Your task to perform on an android device: Open accessibility settings Image 0: 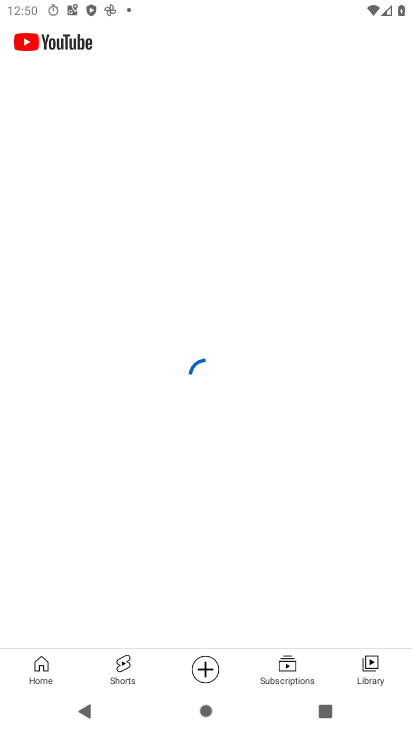
Step 0: click (218, 588)
Your task to perform on an android device: Open accessibility settings Image 1: 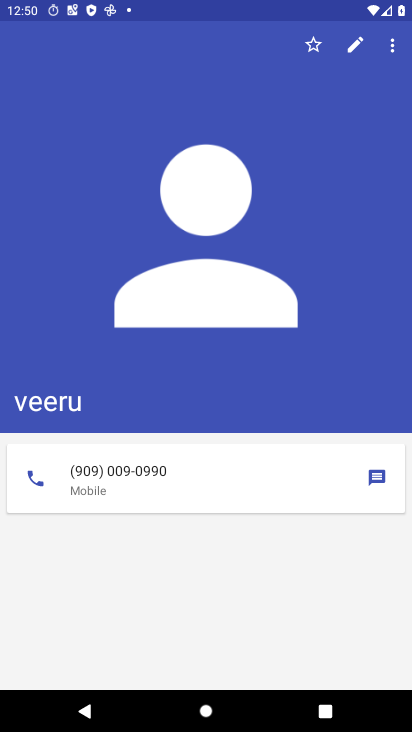
Step 1: press home button
Your task to perform on an android device: Open accessibility settings Image 2: 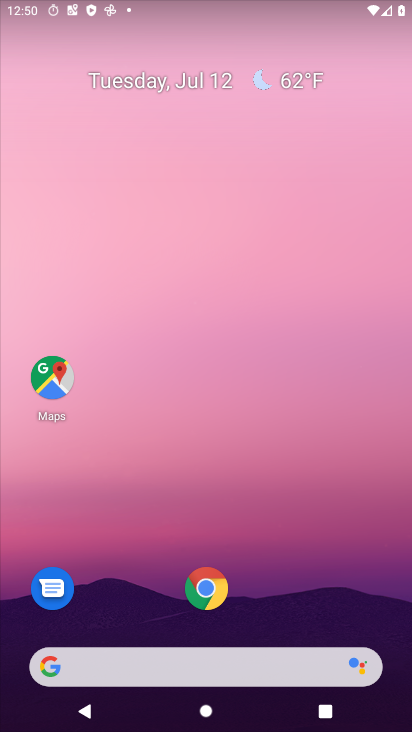
Step 2: drag from (202, 382) to (265, 161)
Your task to perform on an android device: Open accessibility settings Image 3: 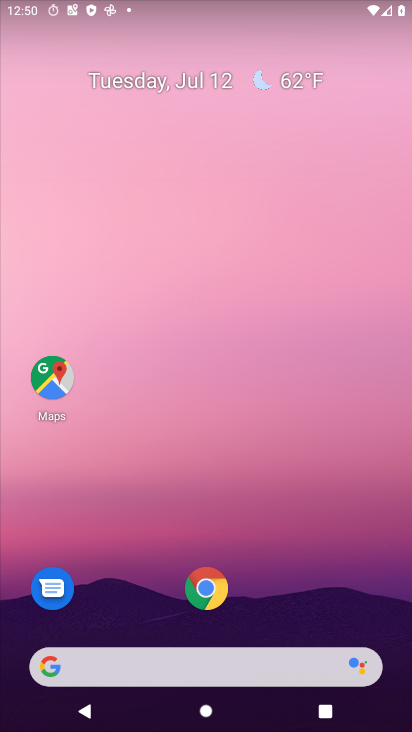
Step 3: drag from (217, 445) to (217, 253)
Your task to perform on an android device: Open accessibility settings Image 4: 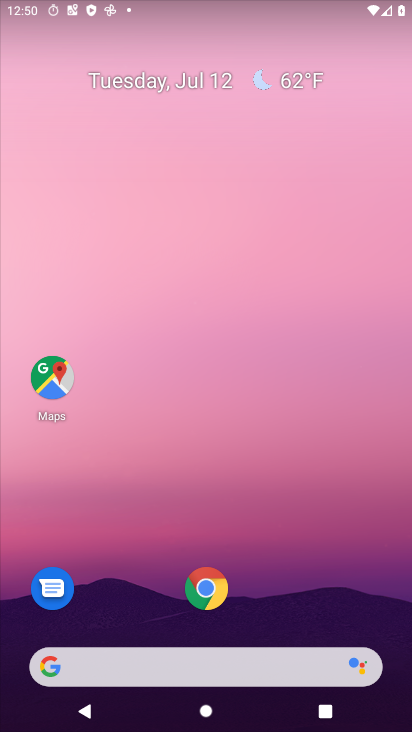
Step 4: click (205, 584)
Your task to perform on an android device: Open accessibility settings Image 5: 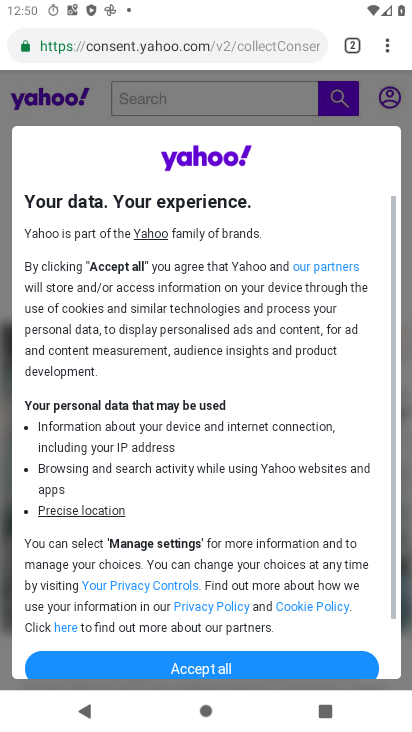
Step 5: click (387, 50)
Your task to perform on an android device: Open accessibility settings Image 6: 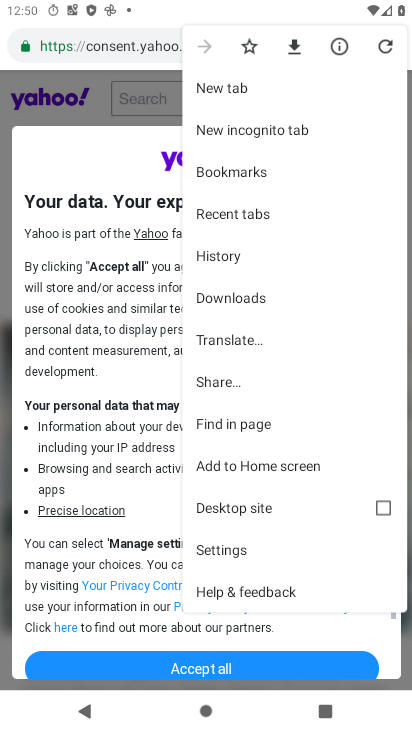
Step 6: click (229, 542)
Your task to perform on an android device: Open accessibility settings Image 7: 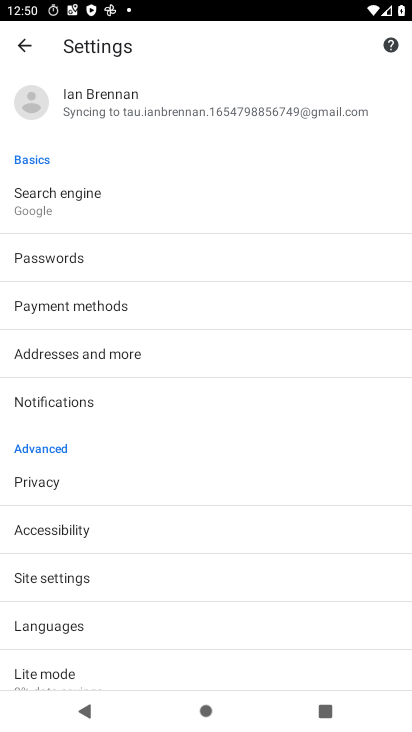
Step 7: click (33, 486)
Your task to perform on an android device: Open accessibility settings Image 8: 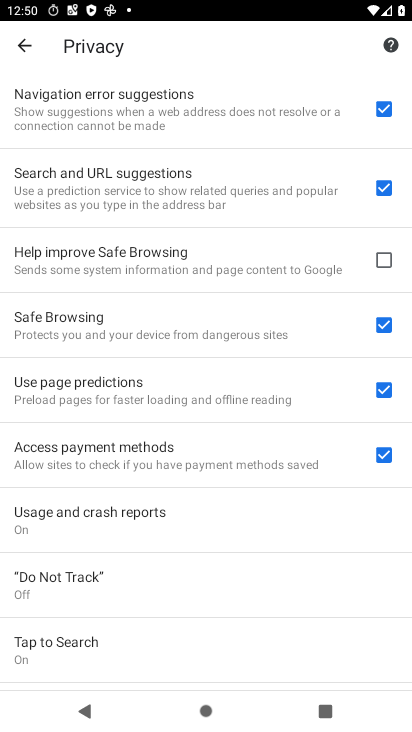
Step 8: task complete